Your task to perform on an android device: add a contact Image 0: 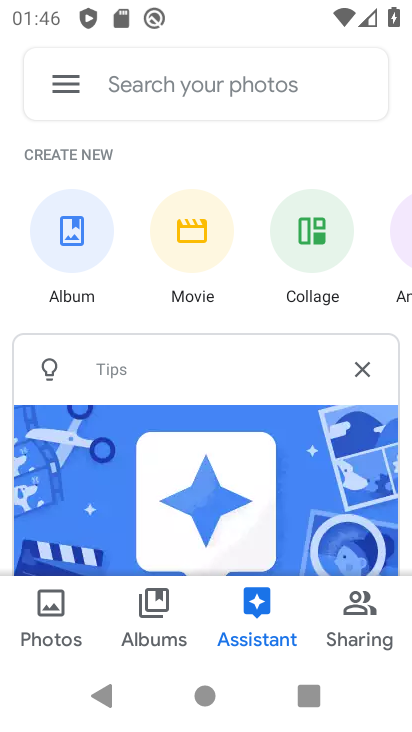
Step 0: press home button
Your task to perform on an android device: add a contact Image 1: 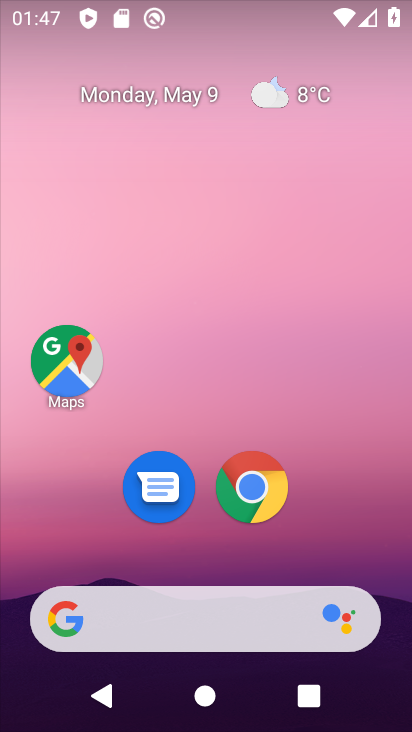
Step 1: drag from (356, 518) to (328, 60)
Your task to perform on an android device: add a contact Image 2: 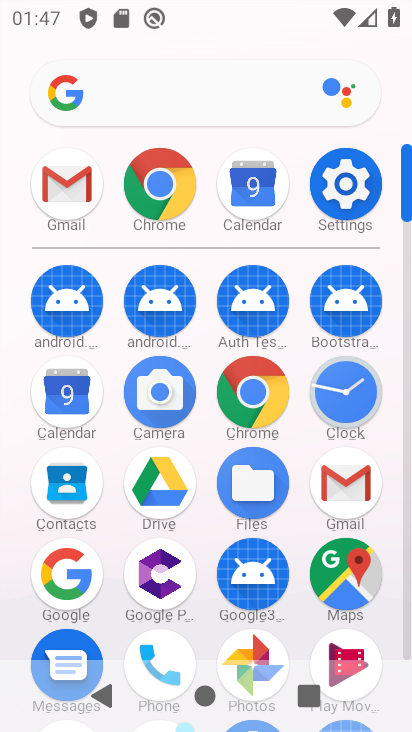
Step 2: click (54, 468)
Your task to perform on an android device: add a contact Image 3: 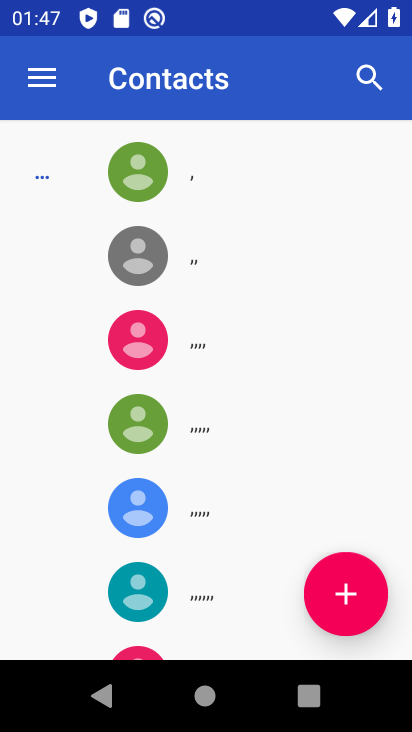
Step 3: click (333, 586)
Your task to perform on an android device: add a contact Image 4: 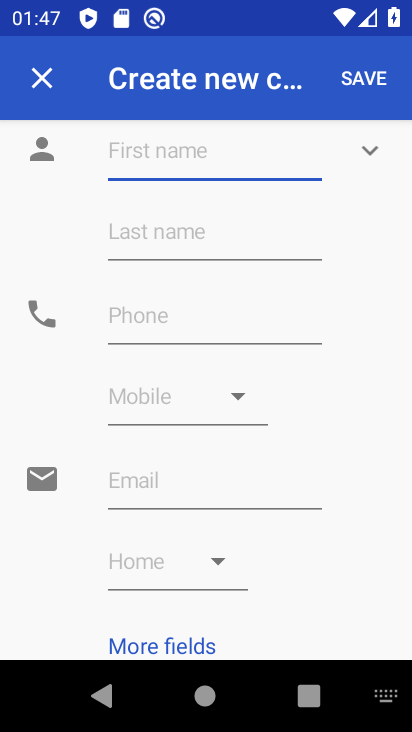
Step 4: type "esfs"
Your task to perform on an android device: add a contact Image 5: 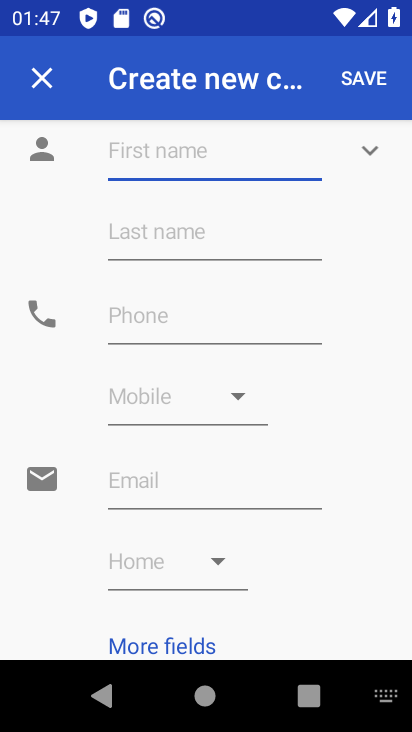
Step 5: click (197, 312)
Your task to perform on an android device: add a contact Image 6: 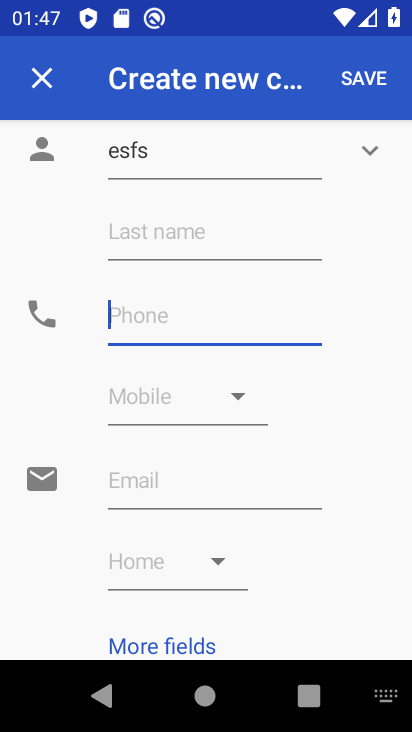
Step 6: type "5556665566"
Your task to perform on an android device: add a contact Image 7: 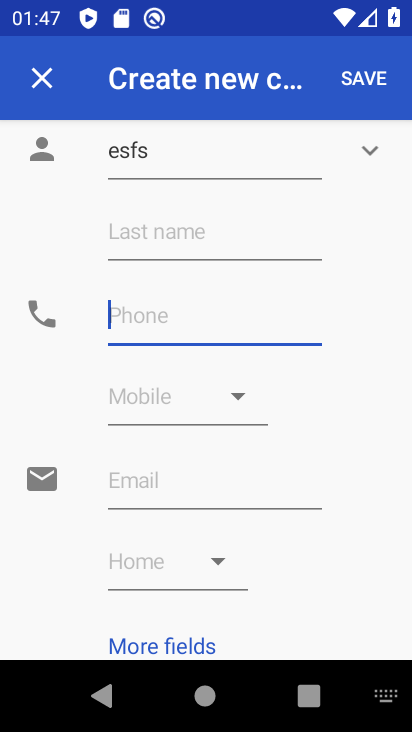
Step 7: click (343, 63)
Your task to perform on an android device: add a contact Image 8: 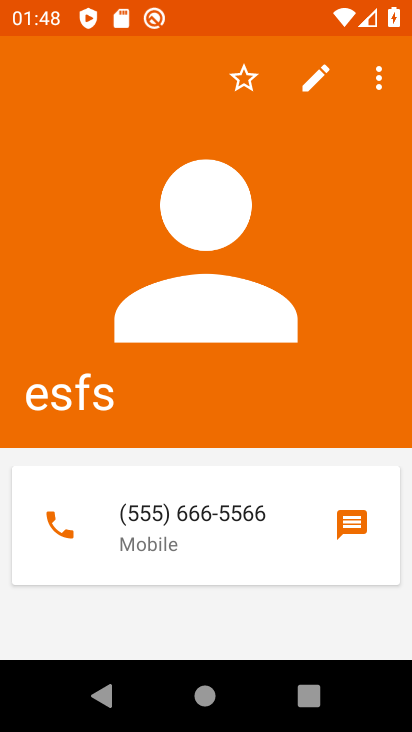
Step 8: task complete